Your task to perform on an android device: Go to location settings Image 0: 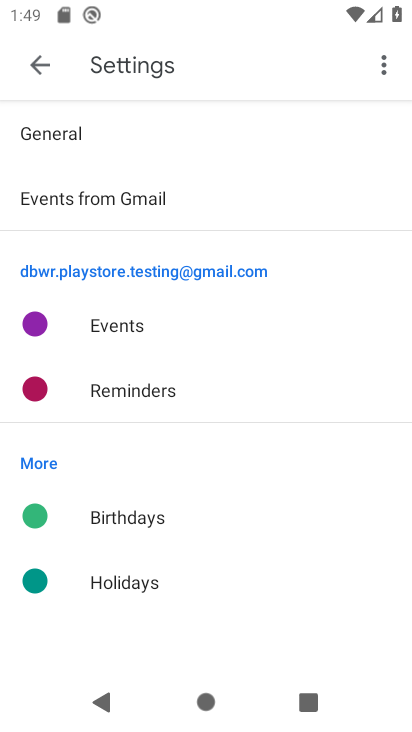
Step 0: press home button
Your task to perform on an android device: Go to location settings Image 1: 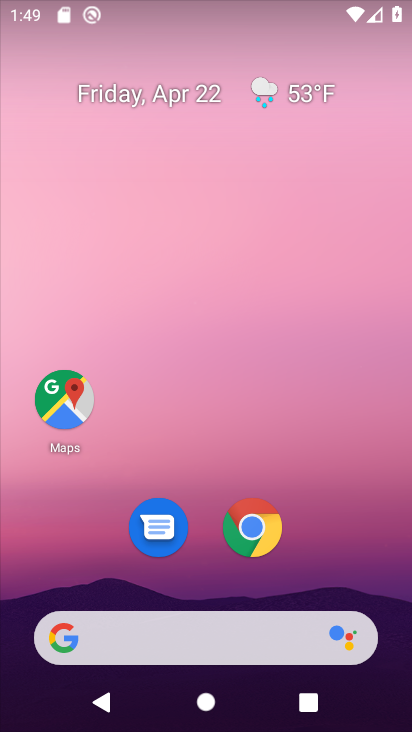
Step 1: drag from (363, 560) to (268, 0)
Your task to perform on an android device: Go to location settings Image 2: 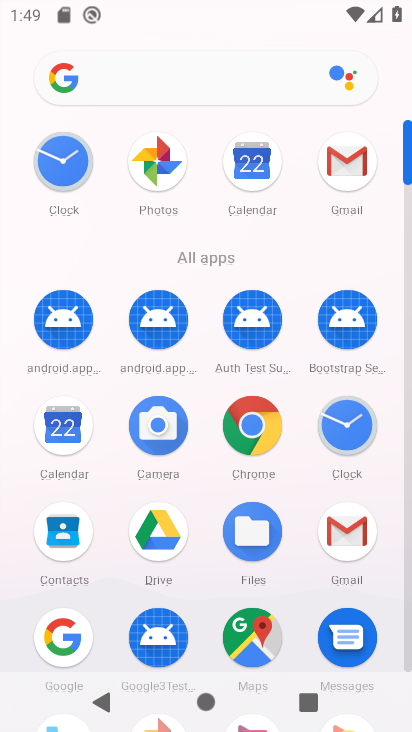
Step 2: drag from (200, 270) to (193, 13)
Your task to perform on an android device: Go to location settings Image 3: 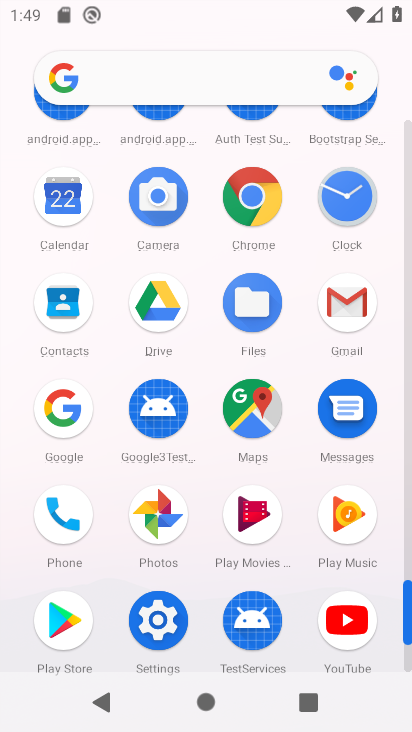
Step 3: click (152, 621)
Your task to perform on an android device: Go to location settings Image 4: 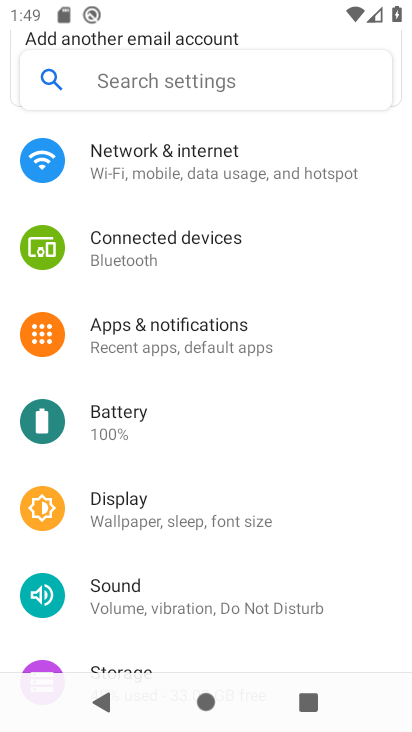
Step 4: drag from (171, 576) to (196, 258)
Your task to perform on an android device: Go to location settings Image 5: 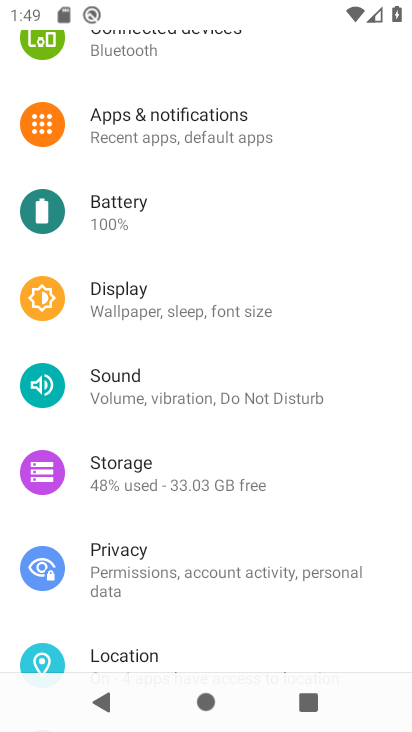
Step 5: drag from (162, 559) to (175, 349)
Your task to perform on an android device: Go to location settings Image 6: 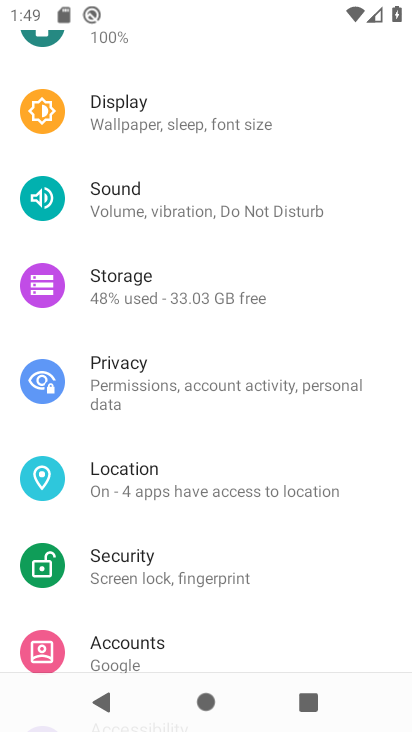
Step 6: click (149, 488)
Your task to perform on an android device: Go to location settings Image 7: 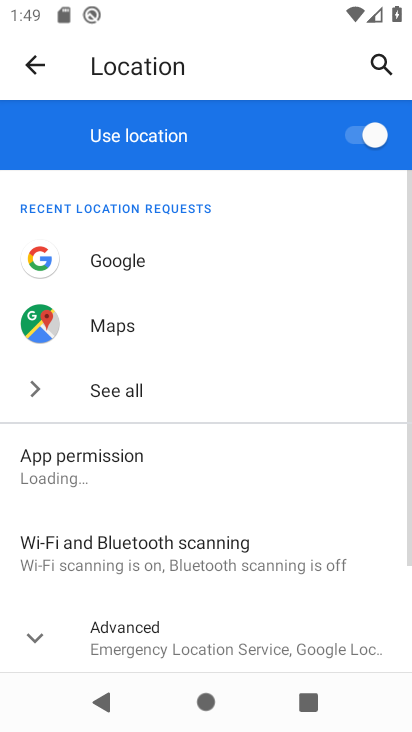
Step 7: task complete